Your task to perform on an android device: Open internet settings Image 0: 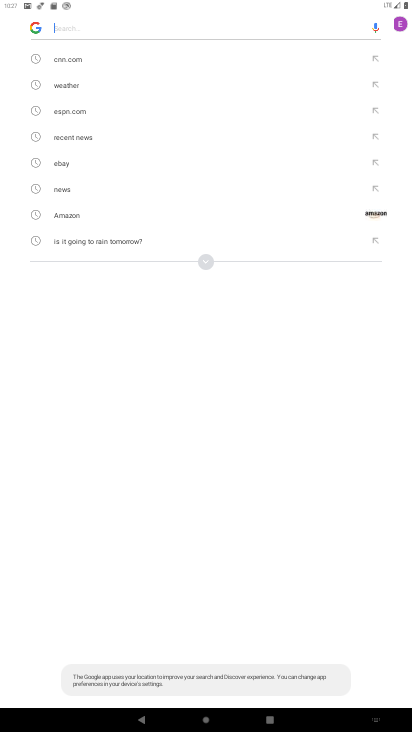
Step 0: press home button
Your task to perform on an android device: Open internet settings Image 1: 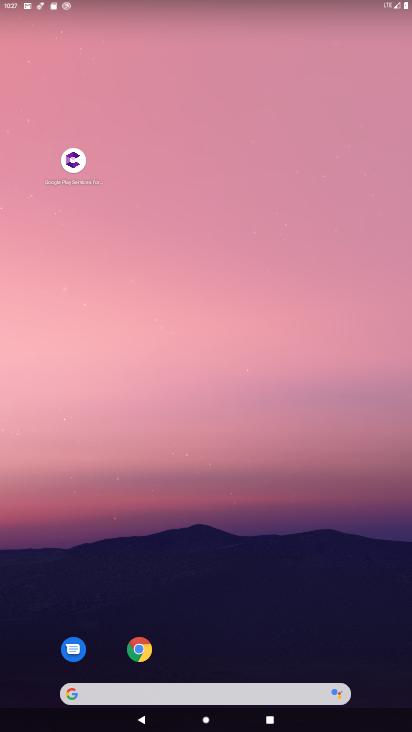
Step 1: drag from (303, 629) to (232, 232)
Your task to perform on an android device: Open internet settings Image 2: 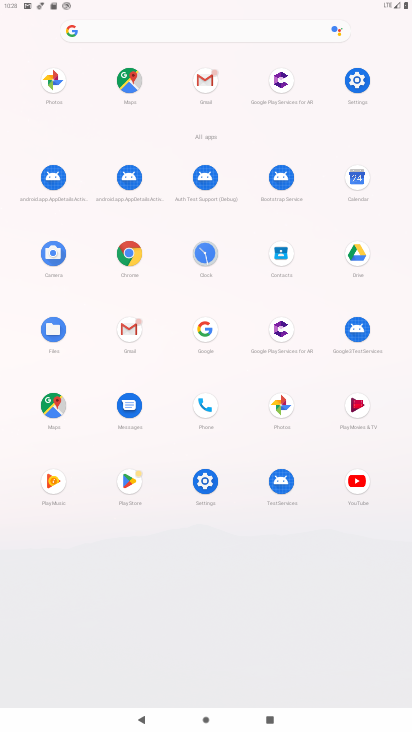
Step 2: click (360, 85)
Your task to perform on an android device: Open internet settings Image 3: 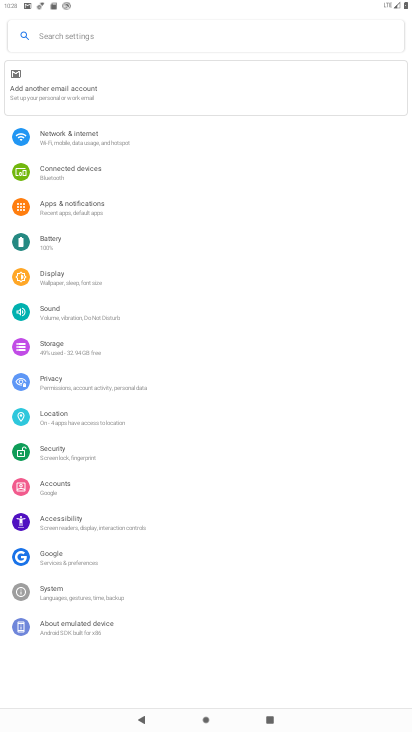
Step 3: click (171, 135)
Your task to perform on an android device: Open internet settings Image 4: 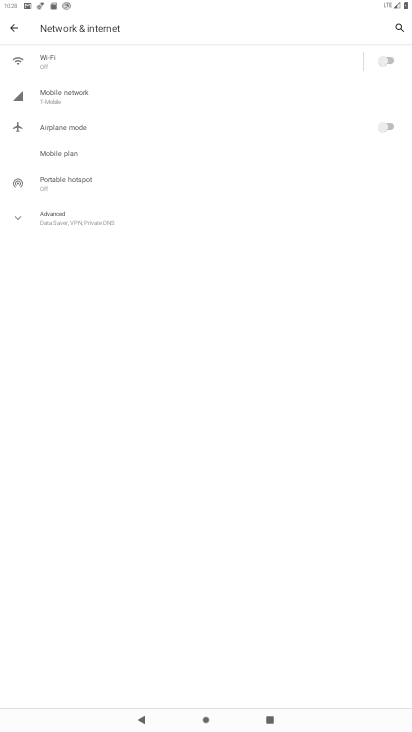
Step 4: task complete